Your task to perform on an android device: turn smart compose on in the gmail app Image 0: 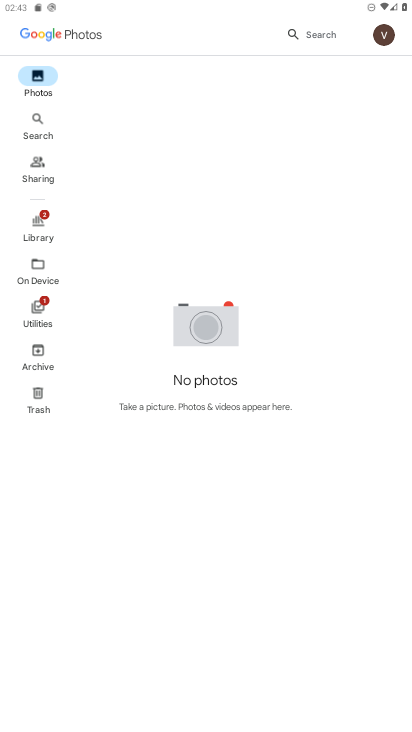
Step 0: press home button
Your task to perform on an android device: turn smart compose on in the gmail app Image 1: 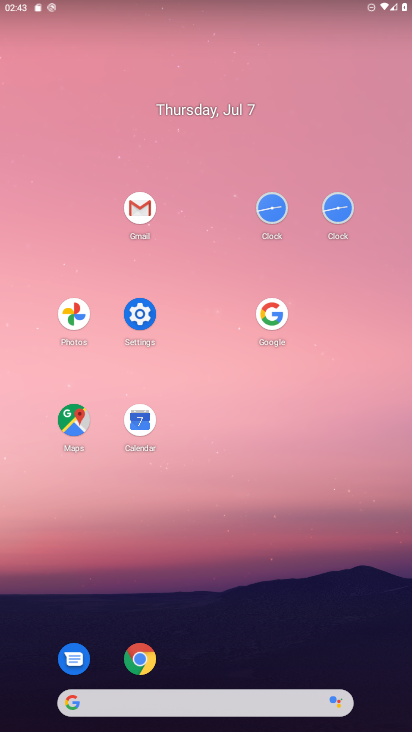
Step 1: click (138, 214)
Your task to perform on an android device: turn smart compose on in the gmail app Image 2: 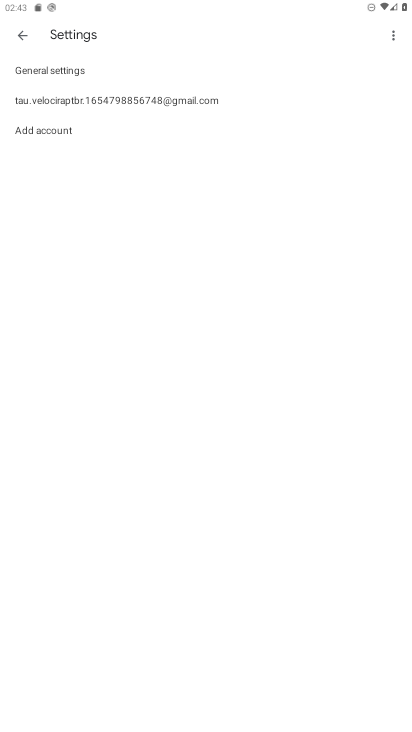
Step 2: click (22, 44)
Your task to perform on an android device: turn smart compose on in the gmail app Image 3: 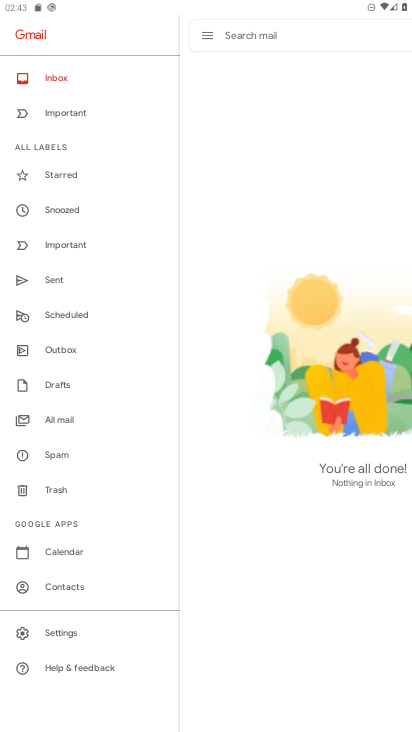
Step 3: click (60, 426)
Your task to perform on an android device: turn smart compose on in the gmail app Image 4: 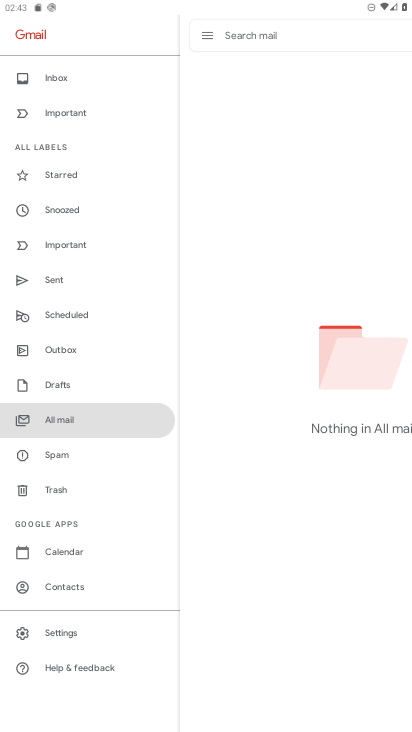
Step 4: task complete